Your task to perform on an android device: What's on my calendar tomorrow? Image 0: 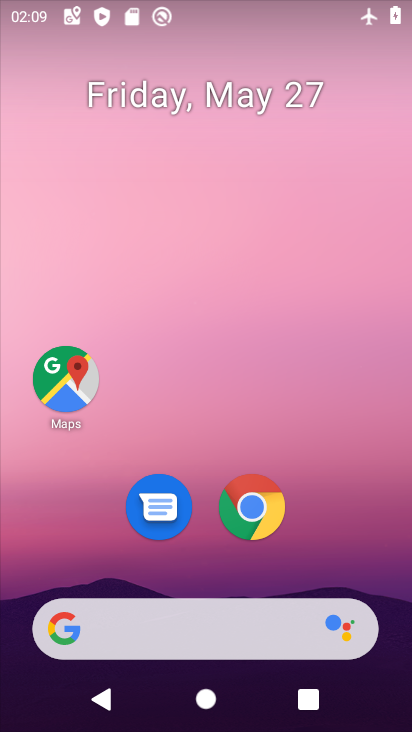
Step 0: drag from (198, 547) to (364, 47)
Your task to perform on an android device: What's on my calendar tomorrow? Image 1: 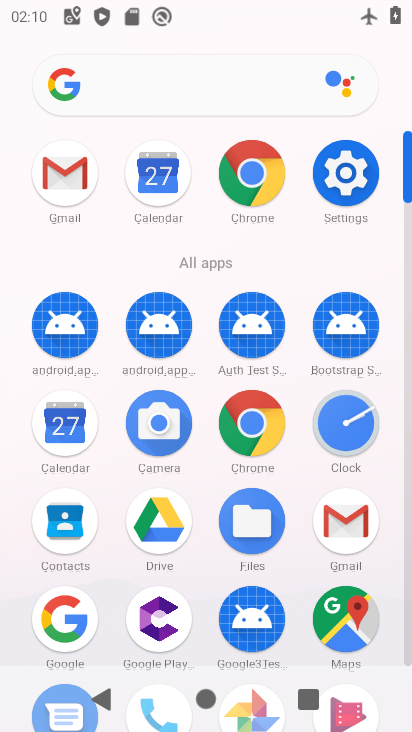
Step 1: click (59, 420)
Your task to perform on an android device: What's on my calendar tomorrow? Image 2: 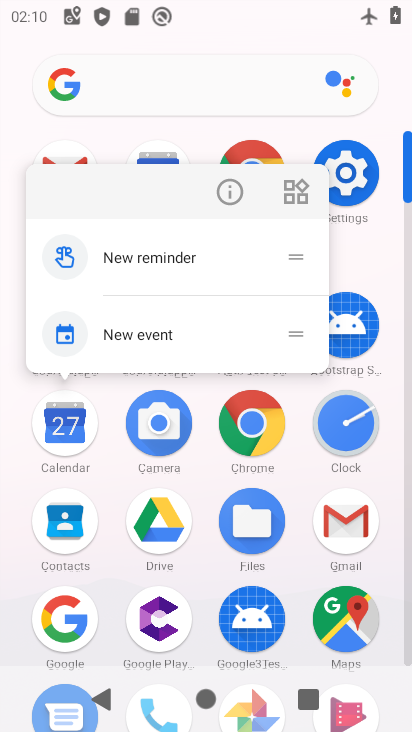
Step 2: click (227, 191)
Your task to perform on an android device: What's on my calendar tomorrow? Image 3: 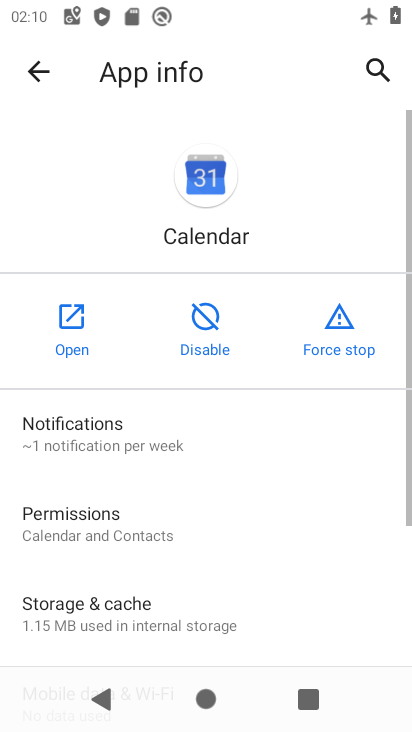
Step 3: click (78, 318)
Your task to perform on an android device: What's on my calendar tomorrow? Image 4: 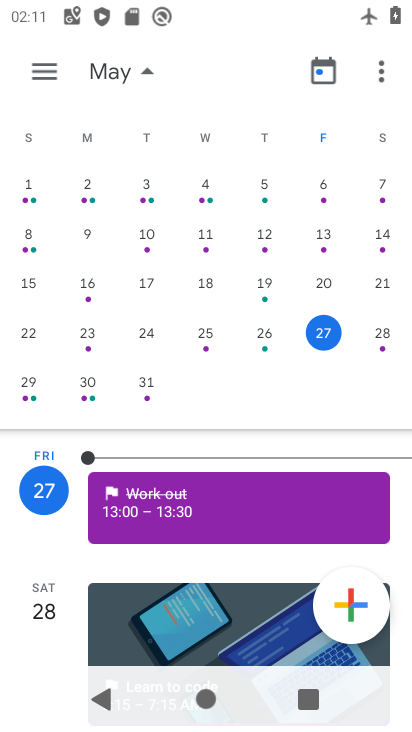
Step 4: drag from (205, 550) to (279, 154)
Your task to perform on an android device: What's on my calendar tomorrow? Image 5: 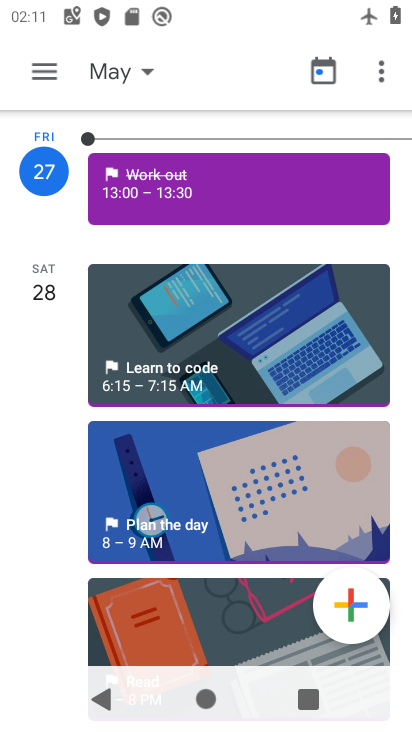
Step 5: click (390, 232)
Your task to perform on an android device: What's on my calendar tomorrow? Image 6: 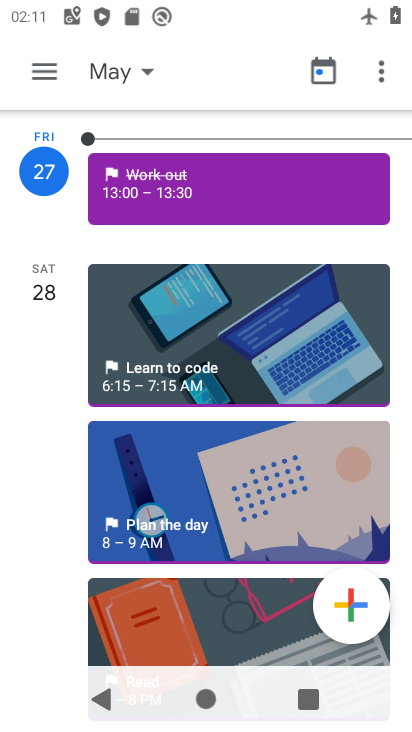
Step 6: click (132, 90)
Your task to perform on an android device: What's on my calendar tomorrow? Image 7: 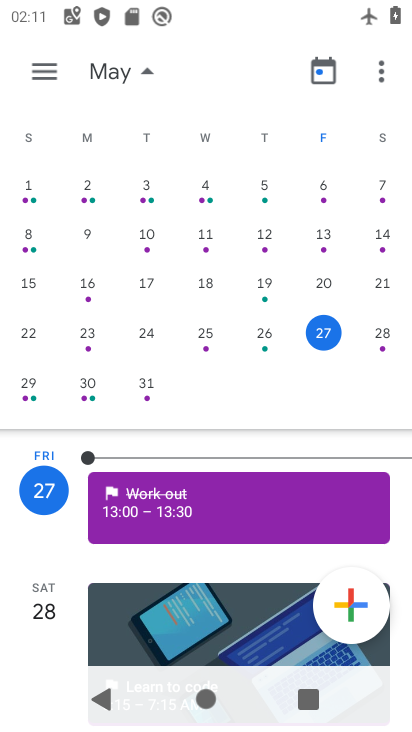
Step 7: click (385, 335)
Your task to perform on an android device: What's on my calendar tomorrow? Image 8: 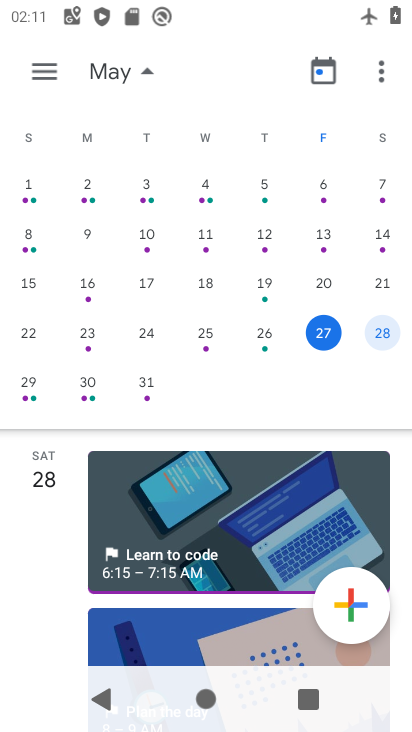
Step 8: task complete